Your task to perform on an android device: Do I have any events this weekend? Image 0: 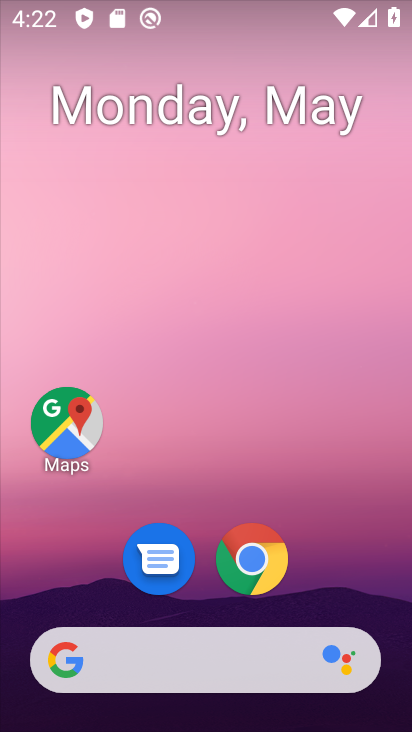
Step 0: drag from (340, 597) to (324, 1)
Your task to perform on an android device: Do I have any events this weekend? Image 1: 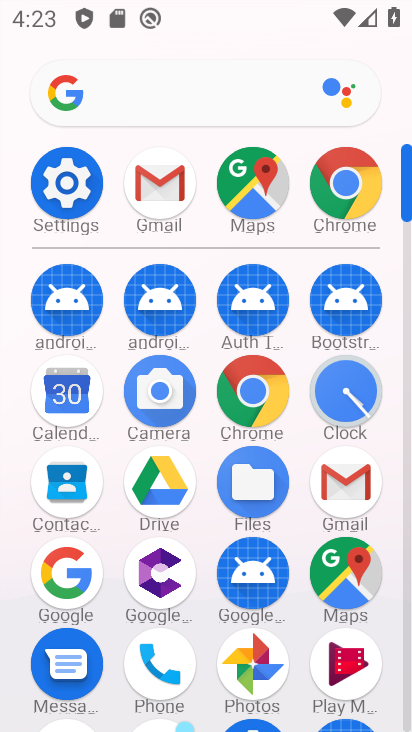
Step 1: click (81, 391)
Your task to perform on an android device: Do I have any events this weekend? Image 2: 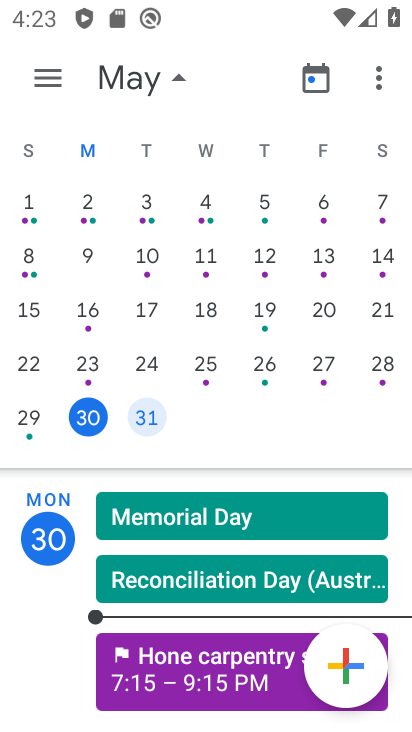
Step 2: drag from (367, 325) to (0, 439)
Your task to perform on an android device: Do I have any events this weekend? Image 3: 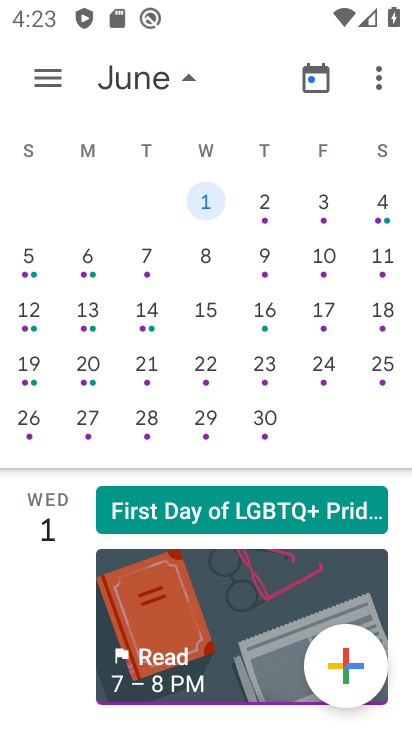
Step 3: click (252, 199)
Your task to perform on an android device: Do I have any events this weekend? Image 4: 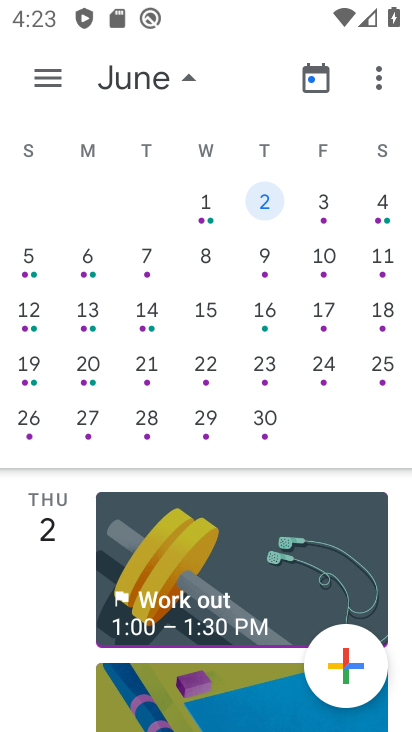
Step 4: click (44, 63)
Your task to perform on an android device: Do I have any events this weekend? Image 5: 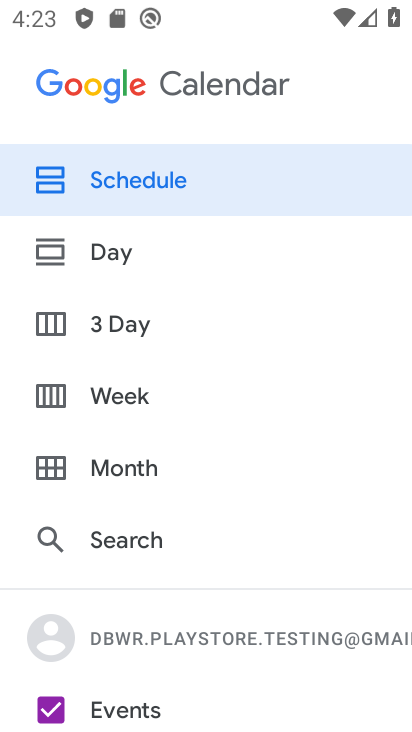
Step 5: click (141, 400)
Your task to perform on an android device: Do I have any events this weekend? Image 6: 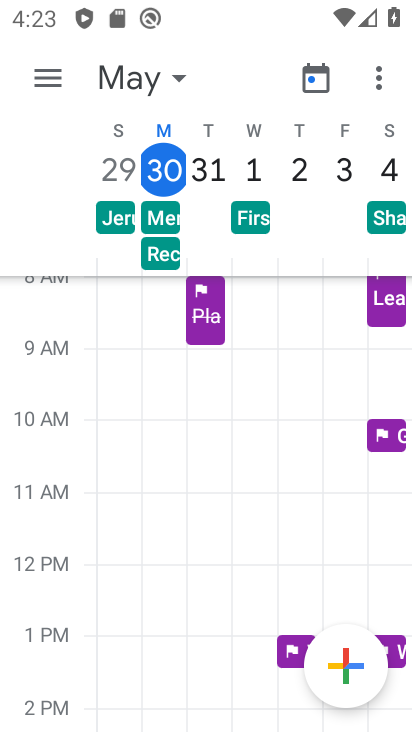
Step 6: task complete